Your task to perform on an android device: Go to network settings Image 0: 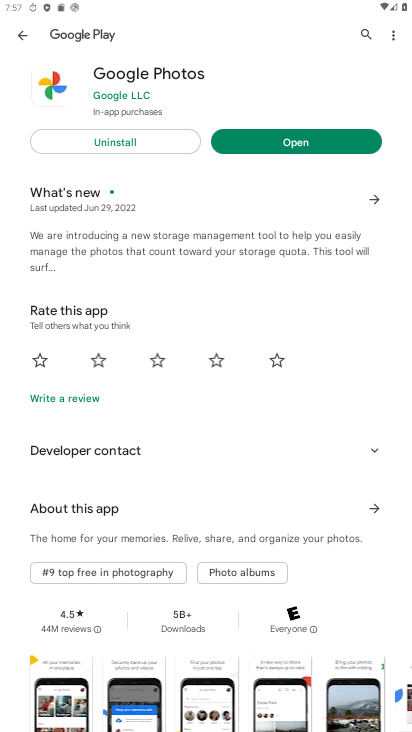
Step 0: press home button
Your task to perform on an android device: Go to network settings Image 1: 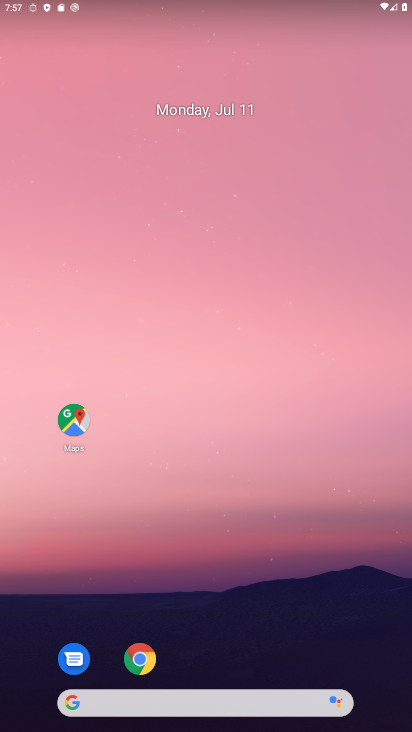
Step 1: drag from (330, 642) to (324, 12)
Your task to perform on an android device: Go to network settings Image 2: 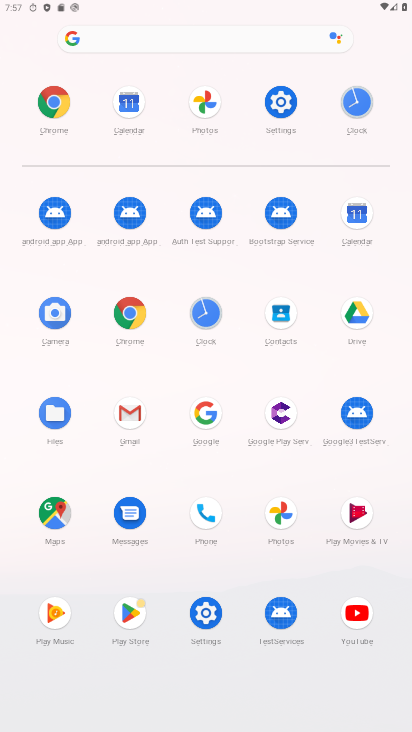
Step 2: click (272, 105)
Your task to perform on an android device: Go to network settings Image 3: 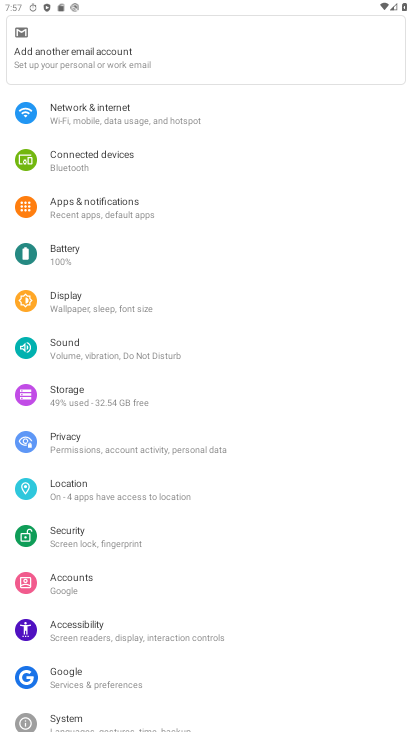
Step 3: click (151, 115)
Your task to perform on an android device: Go to network settings Image 4: 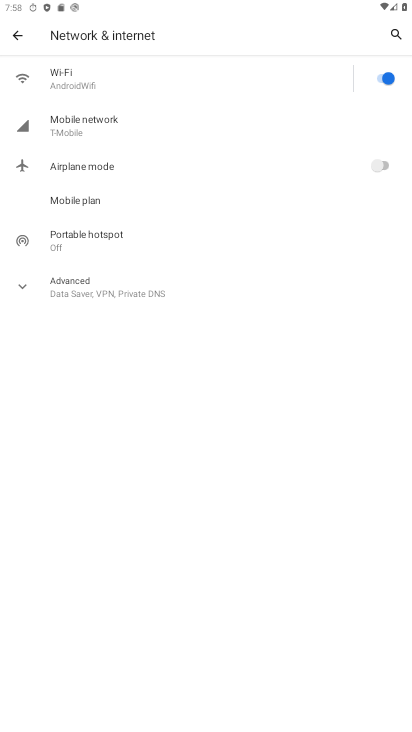
Step 4: click (107, 109)
Your task to perform on an android device: Go to network settings Image 5: 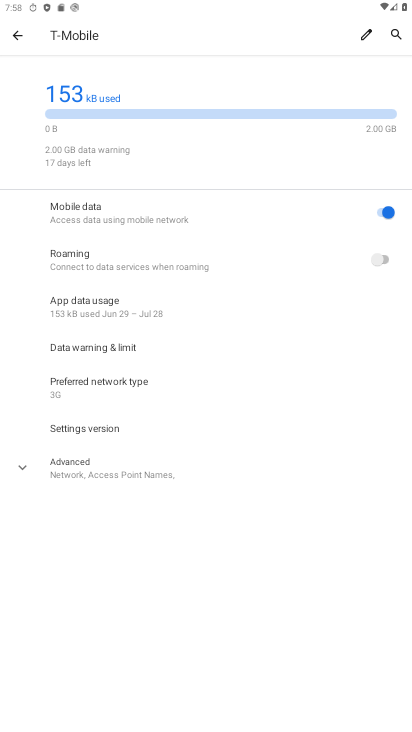
Step 5: task complete